Your task to perform on an android device: What's the weather going to be tomorrow? Image 0: 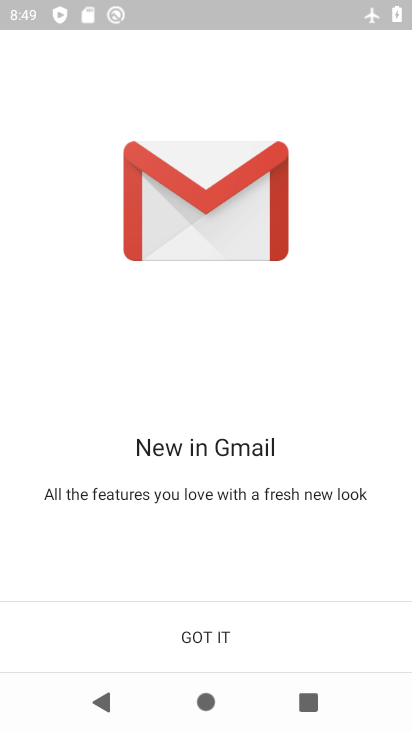
Step 0: press home button
Your task to perform on an android device: What's the weather going to be tomorrow? Image 1: 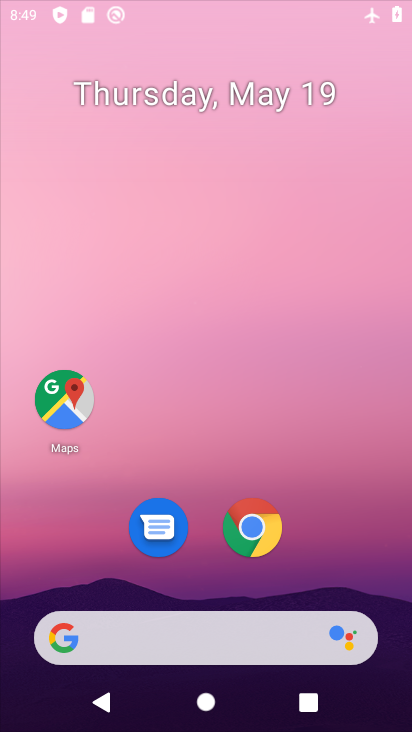
Step 1: drag from (163, 572) to (207, 12)
Your task to perform on an android device: What's the weather going to be tomorrow? Image 2: 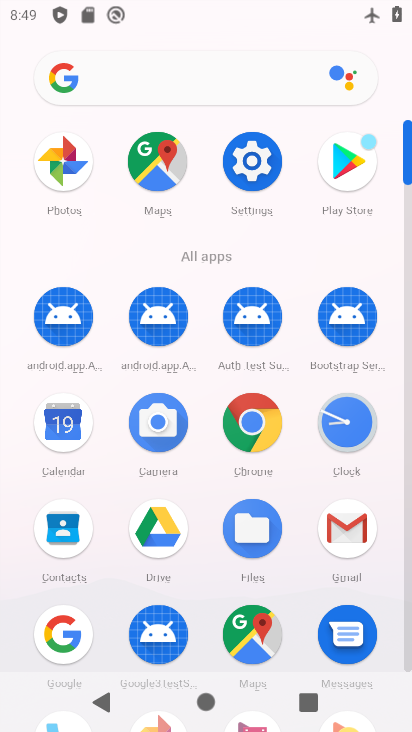
Step 2: click (153, 81)
Your task to perform on an android device: What's the weather going to be tomorrow? Image 3: 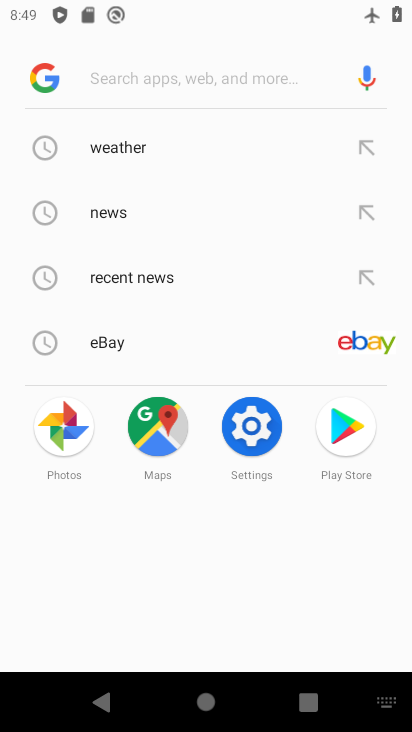
Step 3: type "weather going to be tomorrow"
Your task to perform on an android device: What's the weather going to be tomorrow? Image 4: 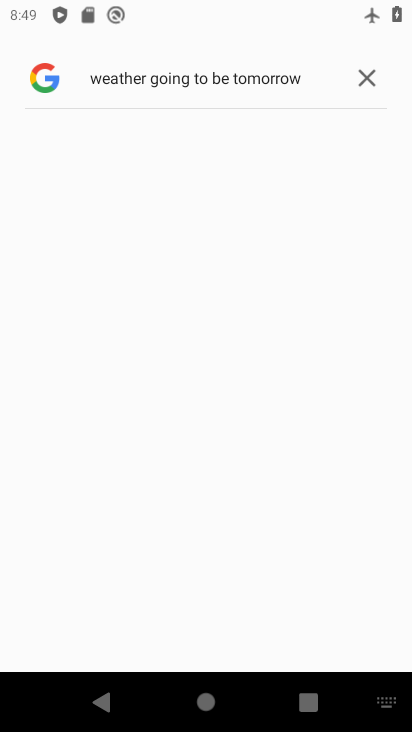
Step 4: click (185, 157)
Your task to perform on an android device: What's the weather going to be tomorrow? Image 5: 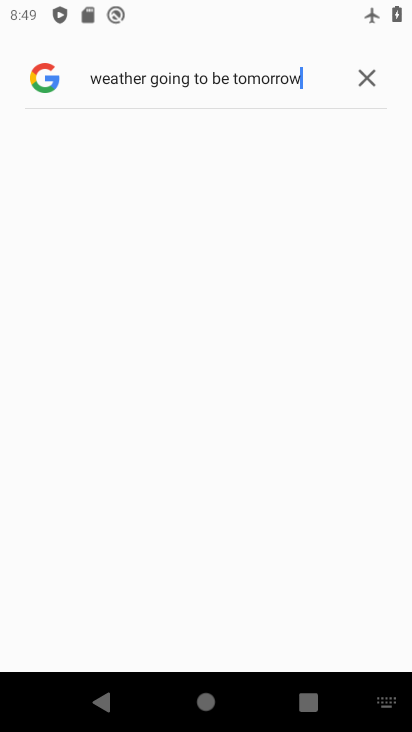
Step 5: task complete